Your task to perform on an android device: see tabs open on other devices in the chrome app Image 0: 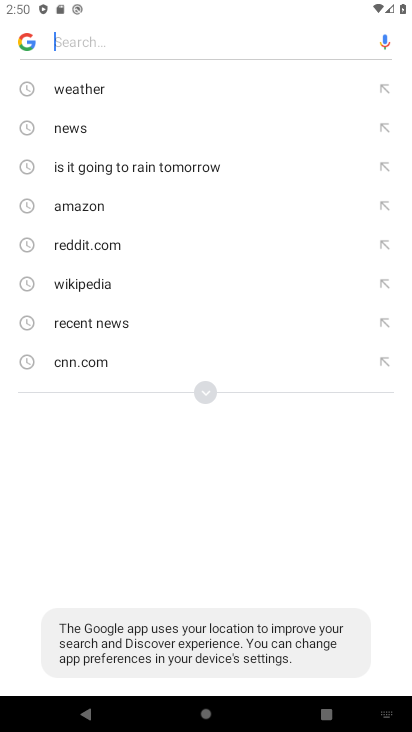
Step 0: press back button
Your task to perform on an android device: see tabs open on other devices in the chrome app Image 1: 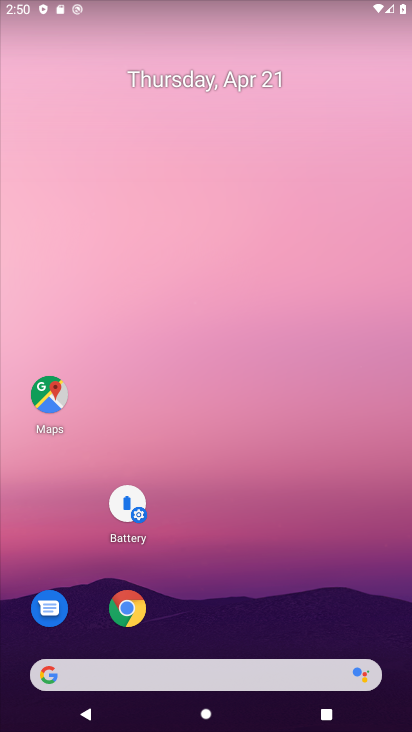
Step 1: drag from (326, 529) to (286, 35)
Your task to perform on an android device: see tabs open on other devices in the chrome app Image 2: 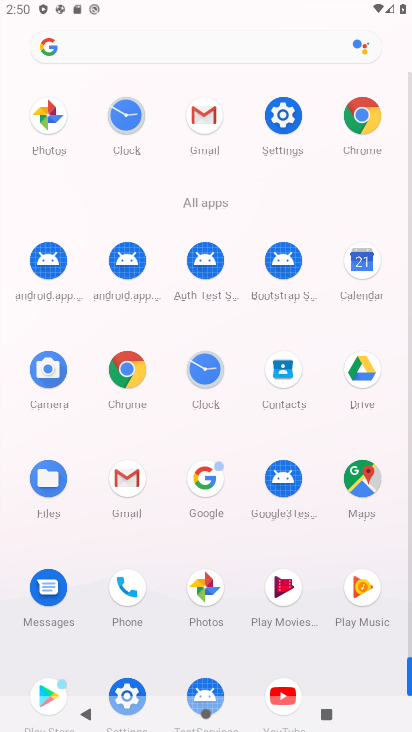
Step 2: click (350, 114)
Your task to perform on an android device: see tabs open on other devices in the chrome app Image 3: 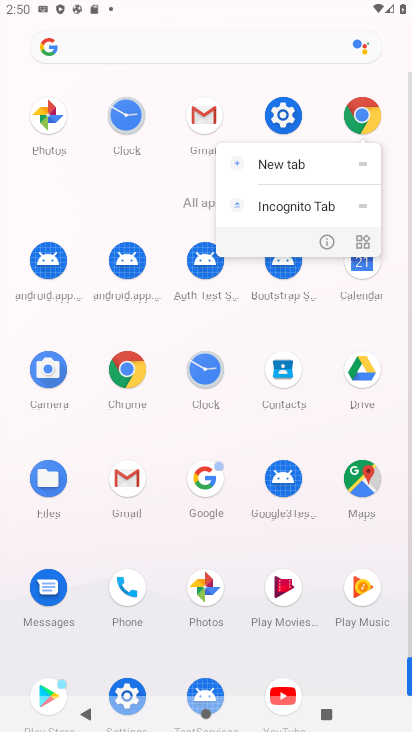
Step 3: click (369, 122)
Your task to perform on an android device: see tabs open on other devices in the chrome app Image 4: 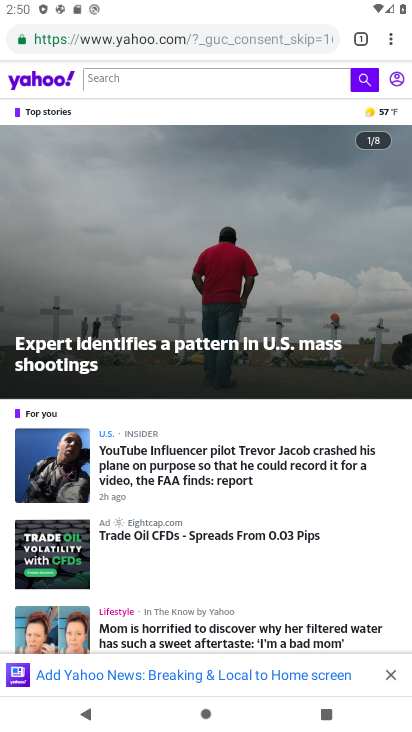
Step 4: drag from (388, 38) to (288, 186)
Your task to perform on an android device: see tabs open on other devices in the chrome app Image 5: 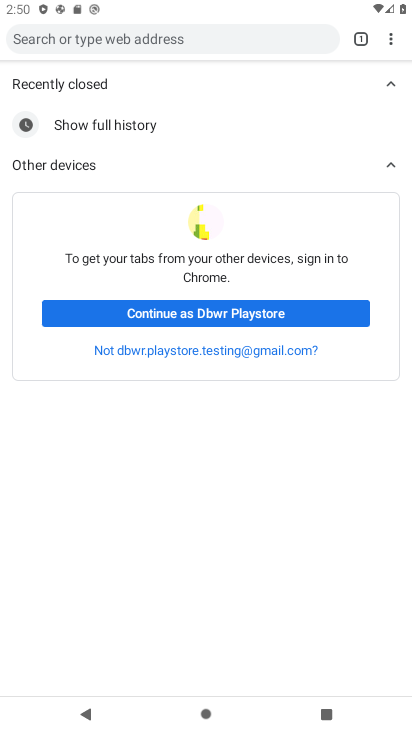
Step 5: click (204, 313)
Your task to perform on an android device: see tabs open on other devices in the chrome app Image 6: 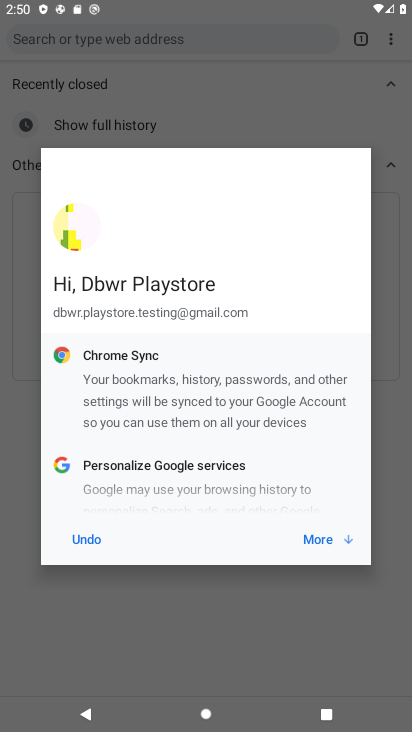
Step 6: click (331, 542)
Your task to perform on an android device: see tabs open on other devices in the chrome app Image 7: 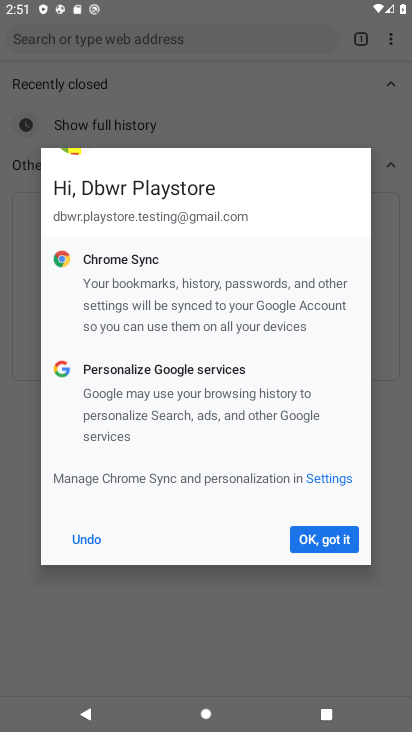
Step 7: click (331, 541)
Your task to perform on an android device: see tabs open on other devices in the chrome app Image 8: 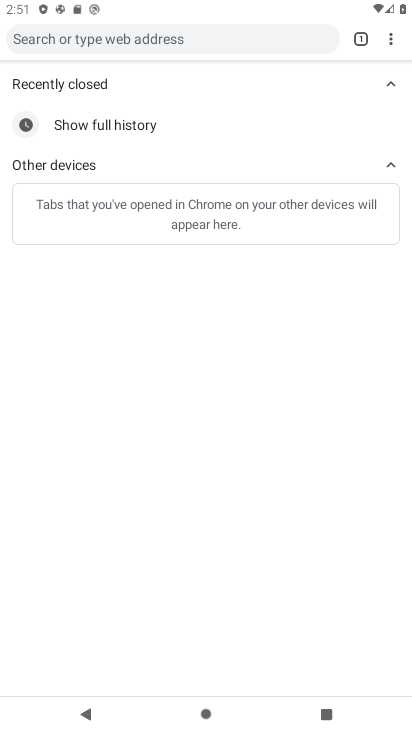
Step 8: task complete